Your task to perform on an android device: open a new tab in the chrome app Image 0: 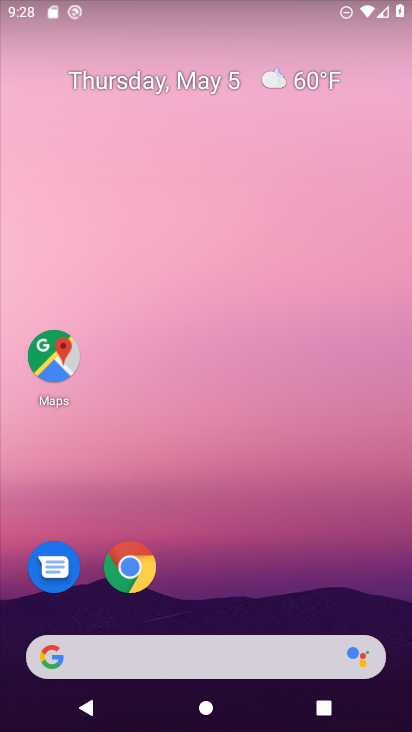
Step 0: click (128, 563)
Your task to perform on an android device: open a new tab in the chrome app Image 1: 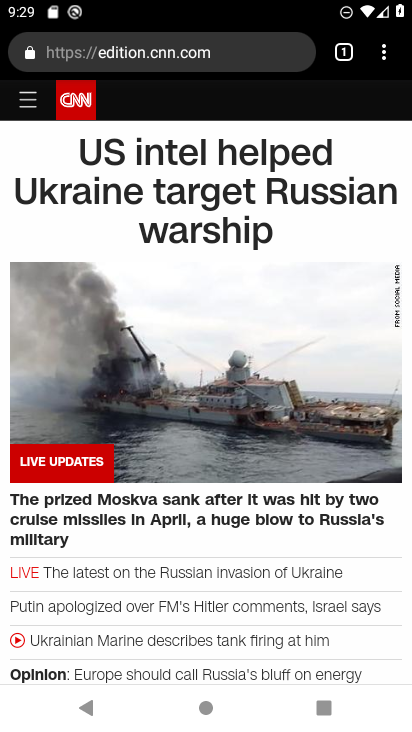
Step 1: task complete